Your task to perform on an android device: set the stopwatch Image 0: 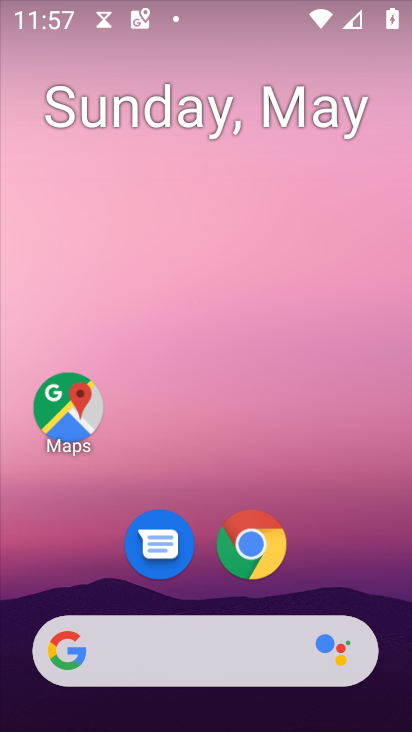
Step 0: drag from (287, 561) to (319, 178)
Your task to perform on an android device: set the stopwatch Image 1: 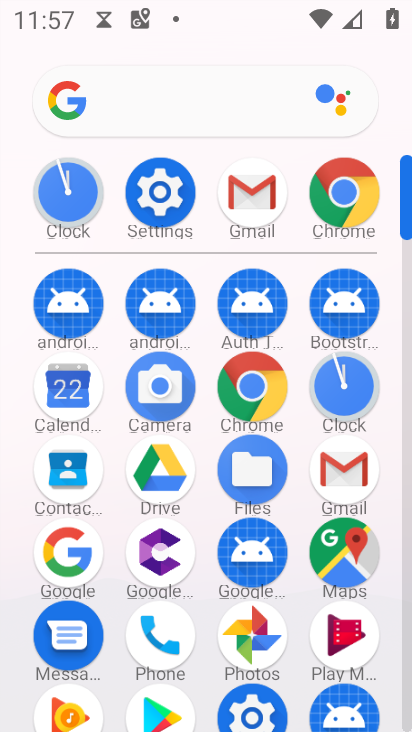
Step 1: click (337, 378)
Your task to perform on an android device: set the stopwatch Image 2: 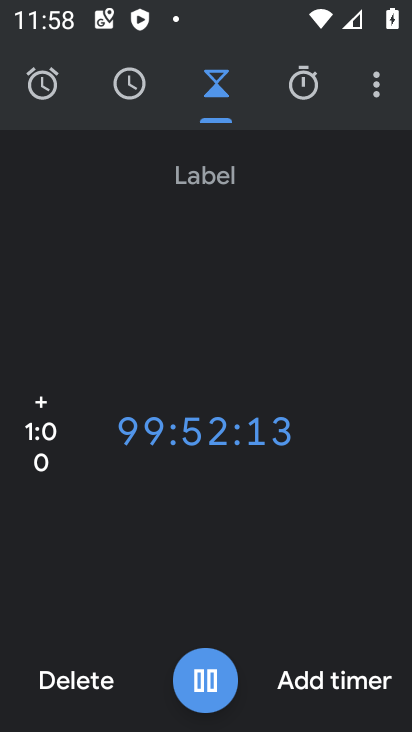
Step 2: task complete